Your task to perform on an android device: allow cookies in the chrome app Image 0: 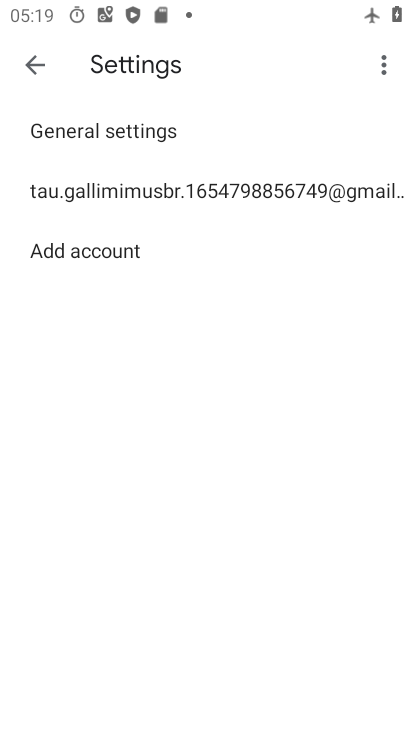
Step 0: press home button
Your task to perform on an android device: allow cookies in the chrome app Image 1: 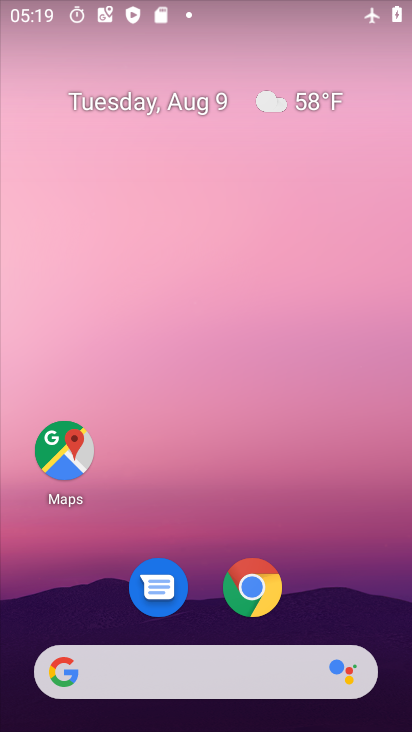
Step 1: click (208, 607)
Your task to perform on an android device: allow cookies in the chrome app Image 2: 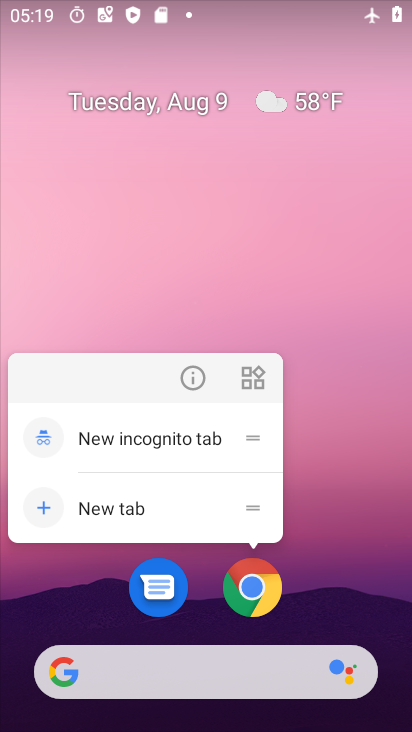
Step 2: click (252, 579)
Your task to perform on an android device: allow cookies in the chrome app Image 3: 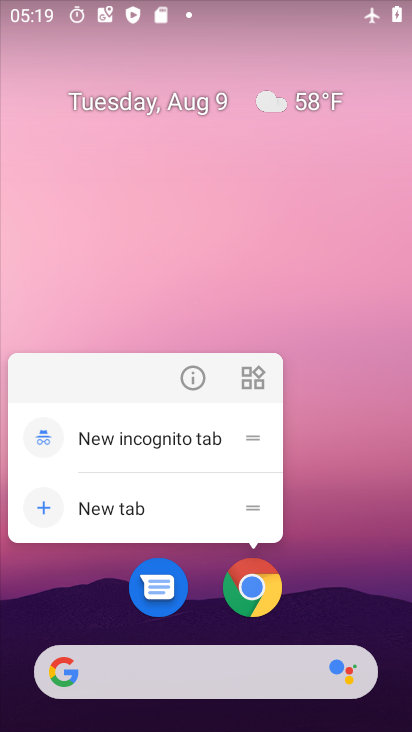
Step 3: click (252, 579)
Your task to perform on an android device: allow cookies in the chrome app Image 4: 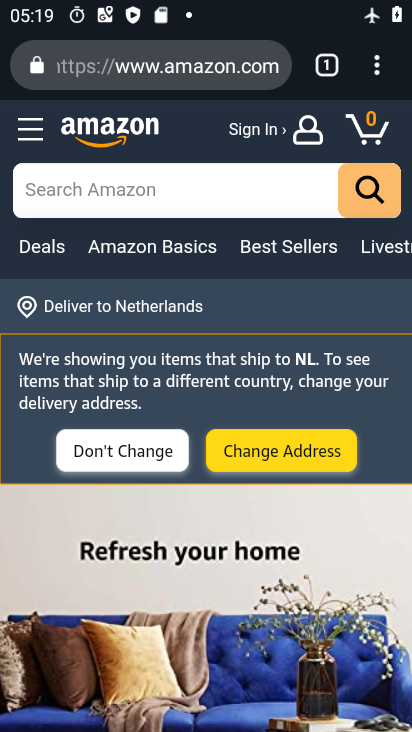
Step 4: drag from (383, 60) to (178, 633)
Your task to perform on an android device: allow cookies in the chrome app Image 5: 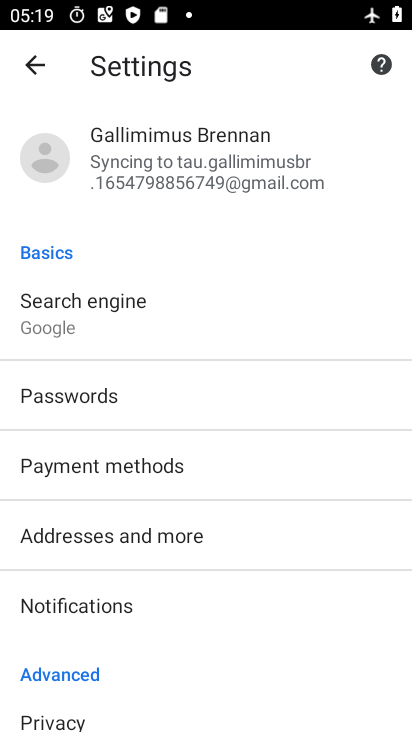
Step 5: drag from (126, 612) to (279, 4)
Your task to perform on an android device: allow cookies in the chrome app Image 6: 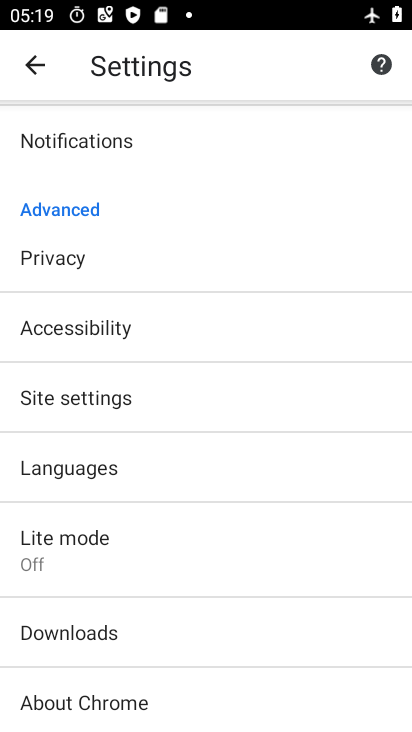
Step 6: click (113, 398)
Your task to perform on an android device: allow cookies in the chrome app Image 7: 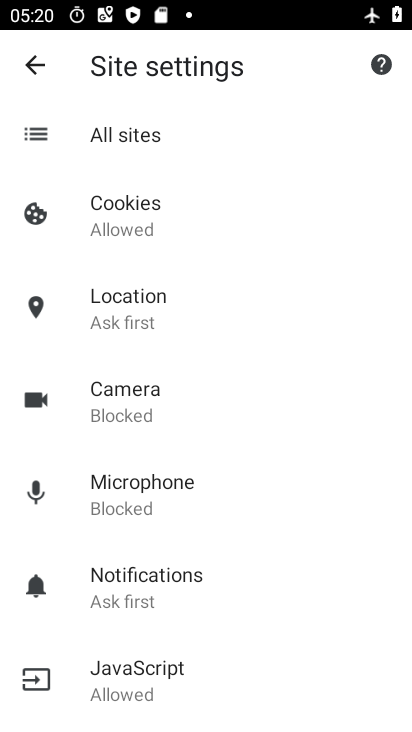
Step 7: click (127, 221)
Your task to perform on an android device: allow cookies in the chrome app Image 8: 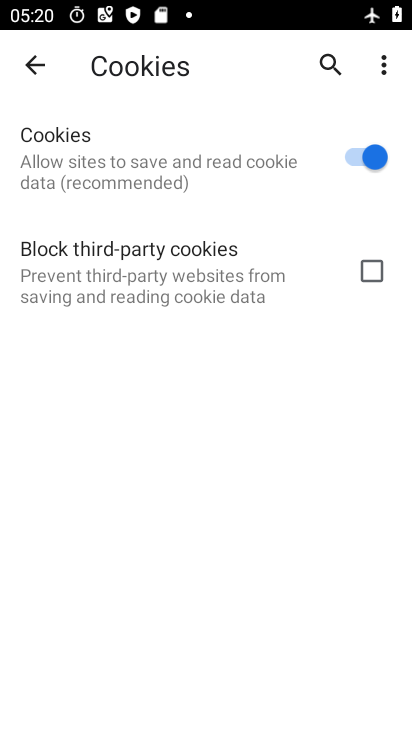
Step 8: task complete